Your task to perform on an android device: Open settings Image 0: 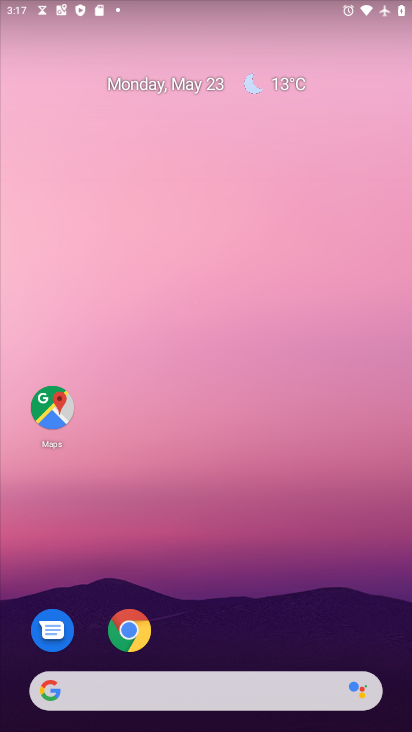
Step 0: drag from (238, 491) to (242, 72)
Your task to perform on an android device: Open settings Image 1: 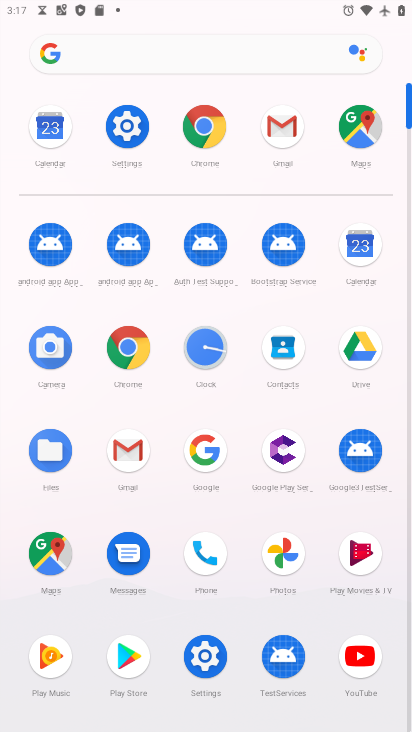
Step 1: click (135, 124)
Your task to perform on an android device: Open settings Image 2: 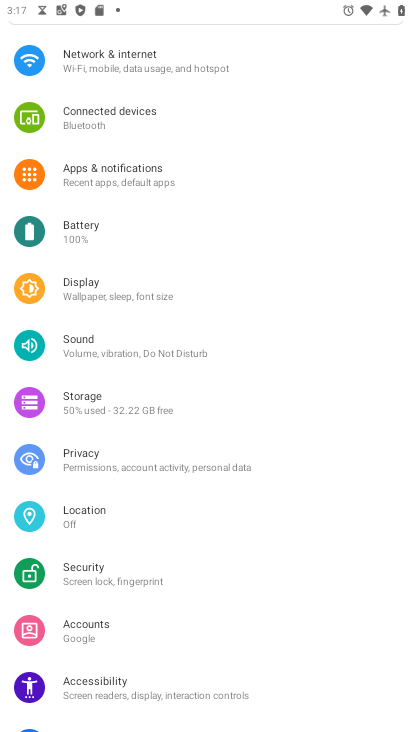
Step 2: task complete